Your task to perform on an android device: create a new album in the google photos Image 0: 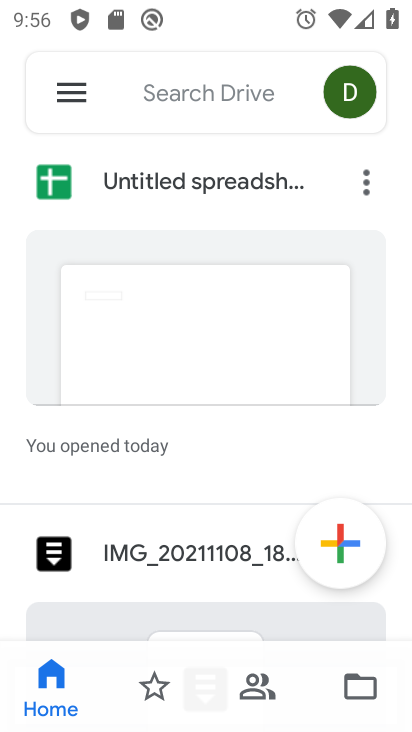
Step 0: press home button
Your task to perform on an android device: create a new album in the google photos Image 1: 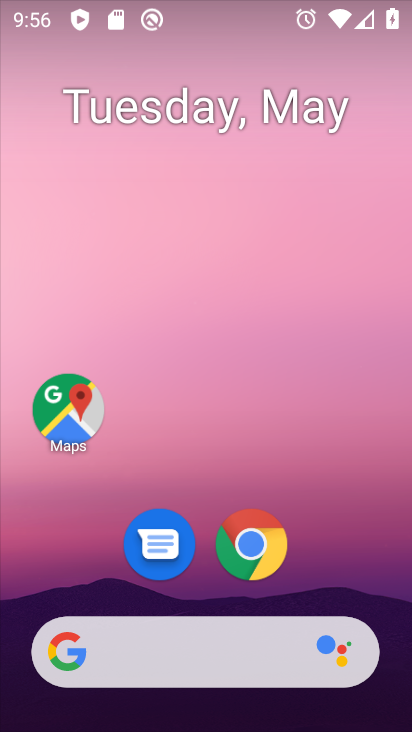
Step 1: drag from (368, 557) to (363, 230)
Your task to perform on an android device: create a new album in the google photos Image 2: 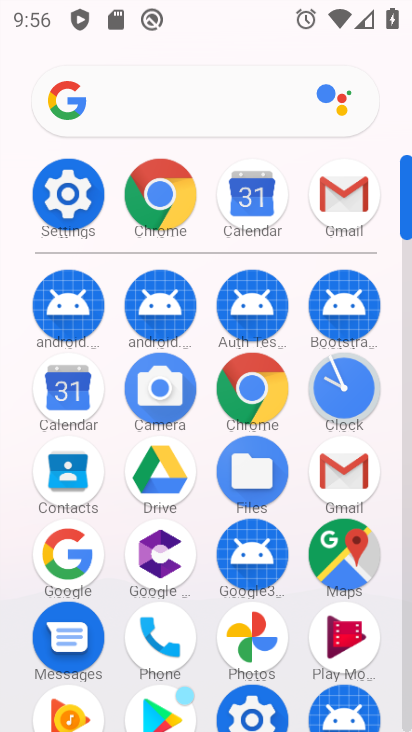
Step 2: click (251, 646)
Your task to perform on an android device: create a new album in the google photos Image 3: 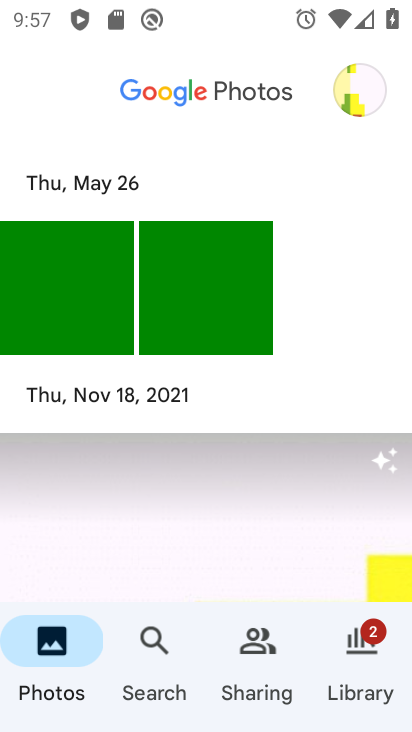
Step 3: click (349, 646)
Your task to perform on an android device: create a new album in the google photos Image 4: 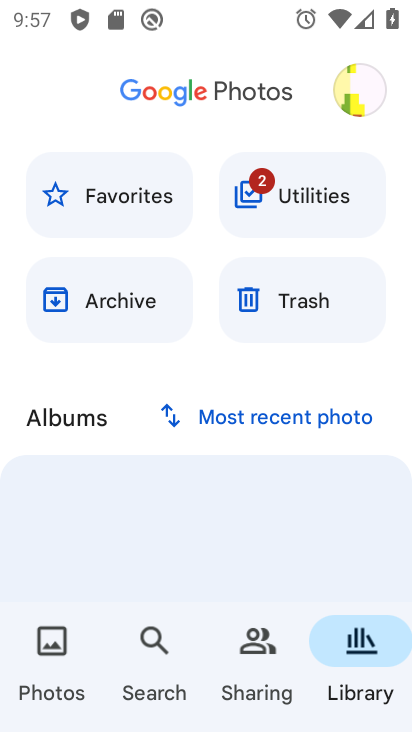
Step 4: drag from (237, 536) to (226, 297)
Your task to perform on an android device: create a new album in the google photos Image 5: 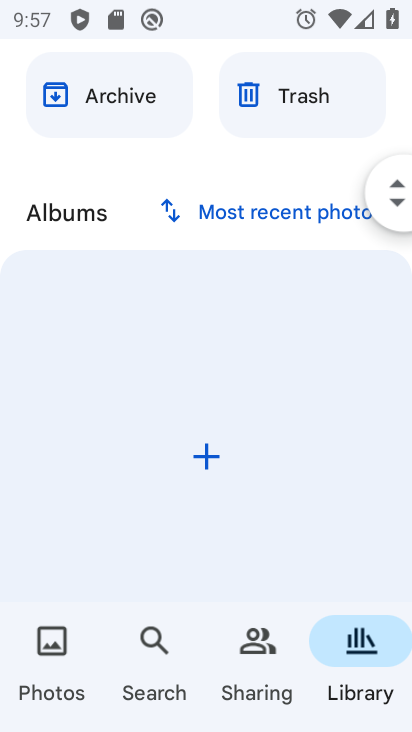
Step 5: click (222, 448)
Your task to perform on an android device: create a new album in the google photos Image 6: 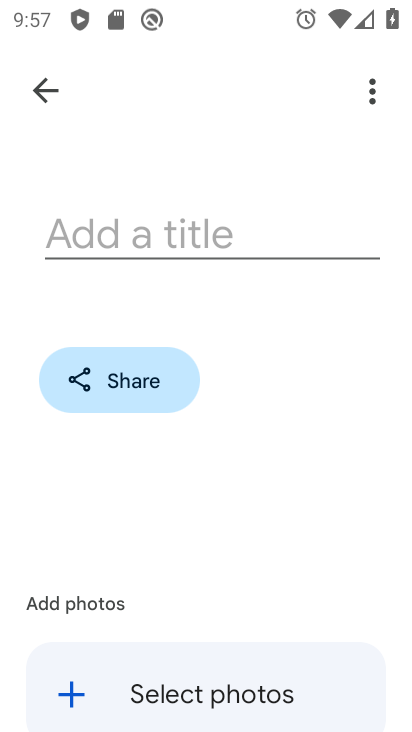
Step 6: click (220, 224)
Your task to perform on an android device: create a new album in the google photos Image 7: 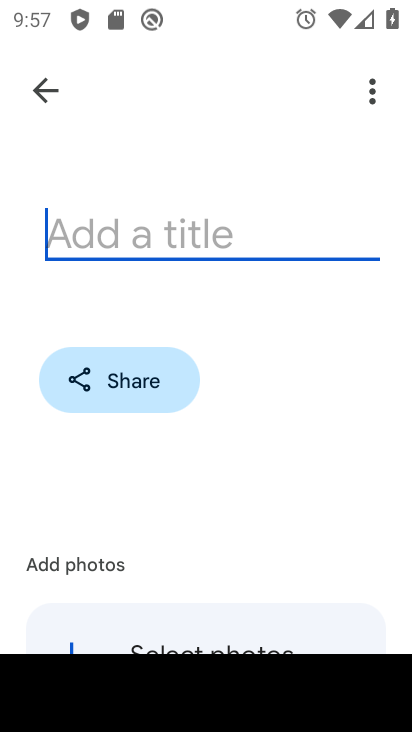
Step 7: type "ijdfks"
Your task to perform on an android device: create a new album in the google photos Image 8: 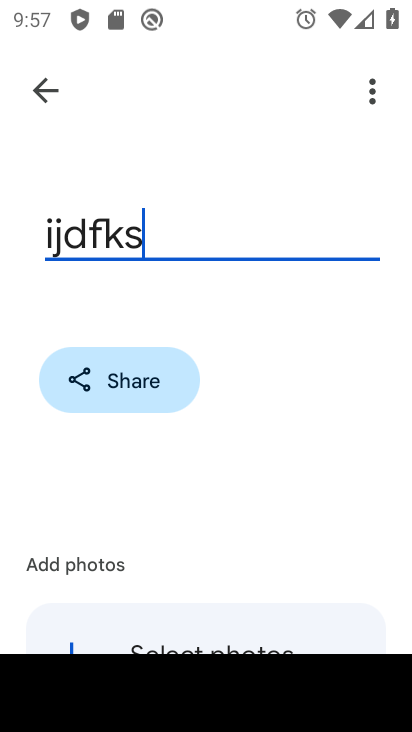
Step 8: click (239, 352)
Your task to perform on an android device: create a new album in the google photos Image 9: 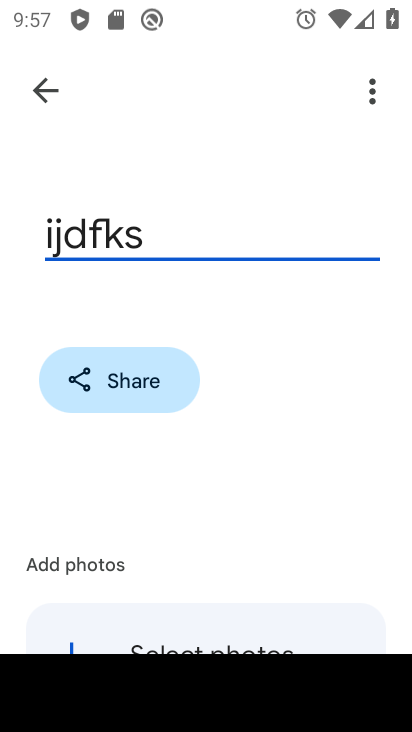
Step 9: drag from (187, 547) to (294, 265)
Your task to perform on an android device: create a new album in the google photos Image 10: 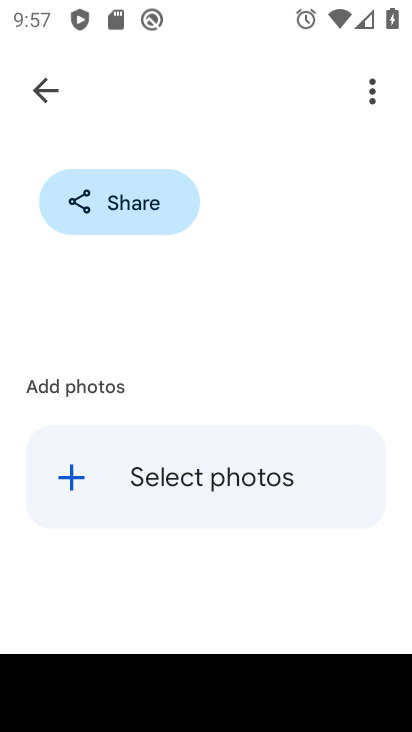
Step 10: click (64, 482)
Your task to perform on an android device: create a new album in the google photos Image 11: 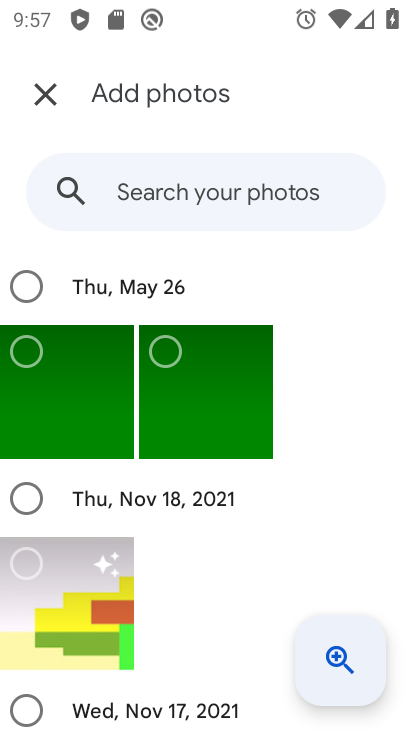
Step 11: click (8, 348)
Your task to perform on an android device: create a new album in the google photos Image 12: 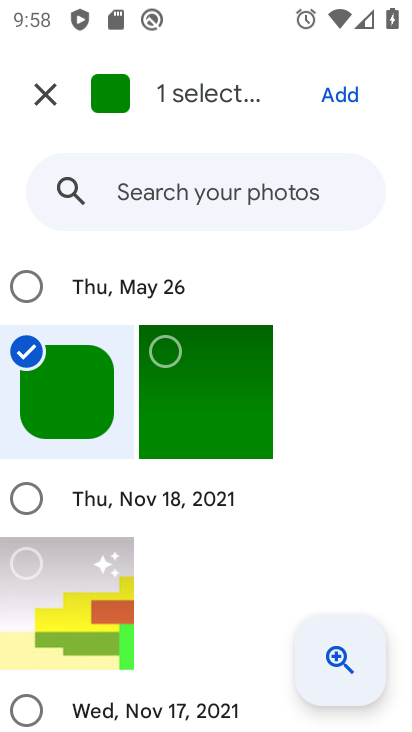
Step 12: click (364, 99)
Your task to perform on an android device: create a new album in the google photos Image 13: 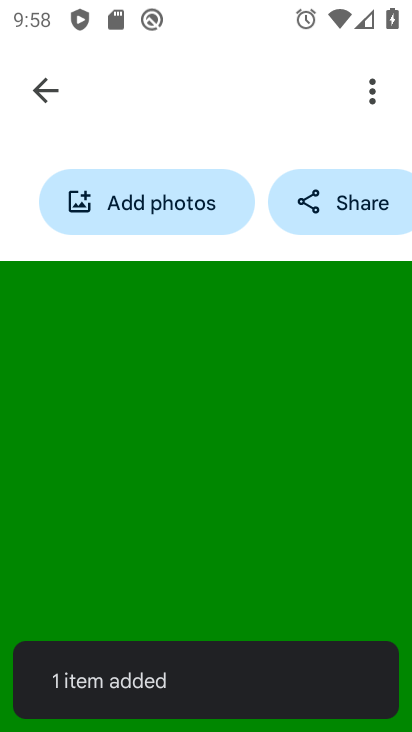
Step 13: task complete